Your task to perform on an android device: open device folders in google photos Image 0: 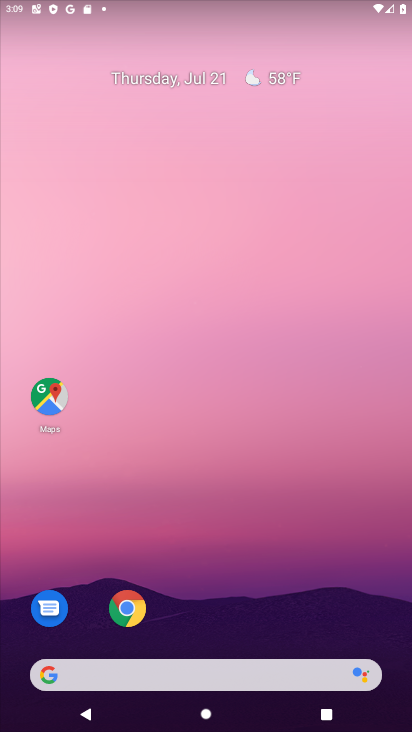
Step 0: press home button
Your task to perform on an android device: open device folders in google photos Image 1: 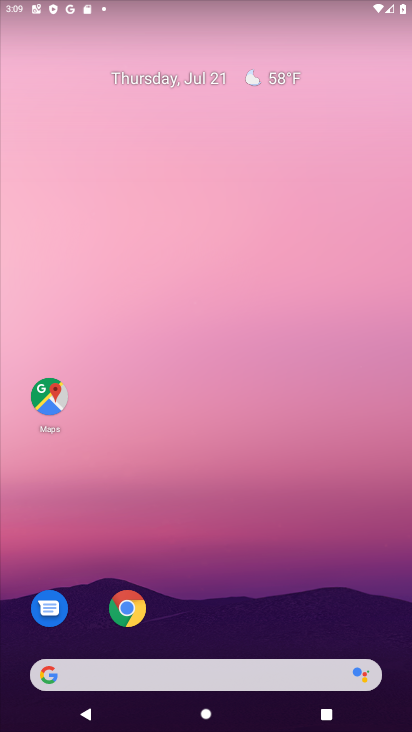
Step 1: drag from (210, 637) to (240, 38)
Your task to perform on an android device: open device folders in google photos Image 2: 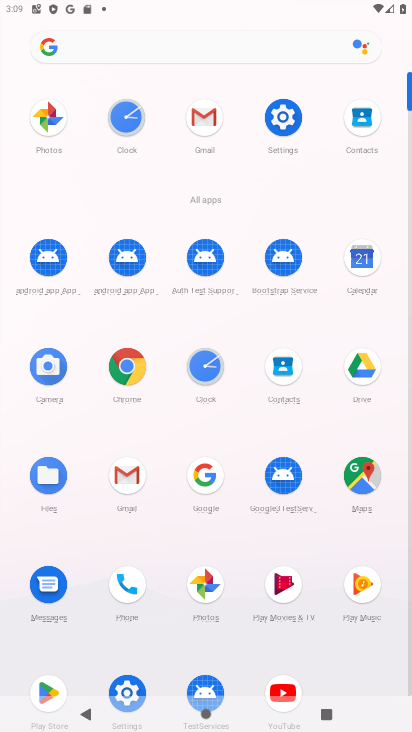
Step 2: click (200, 576)
Your task to perform on an android device: open device folders in google photos Image 3: 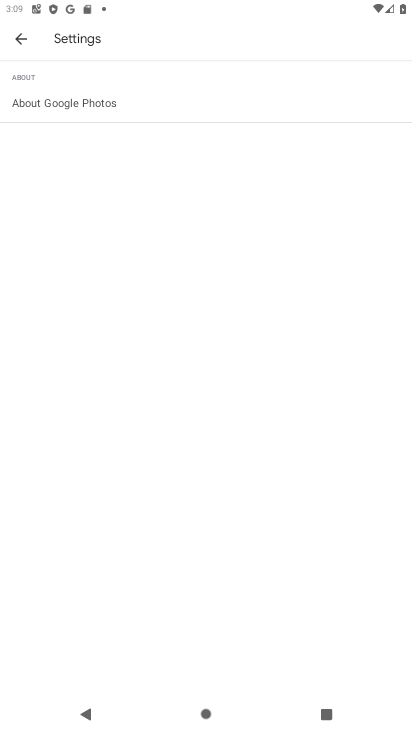
Step 3: click (18, 45)
Your task to perform on an android device: open device folders in google photos Image 4: 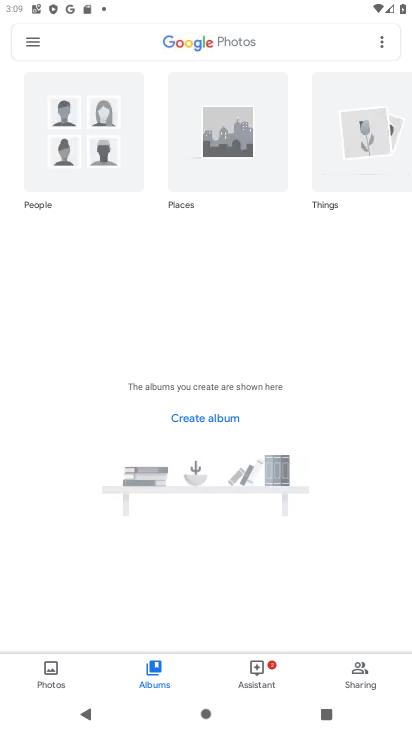
Step 4: click (33, 42)
Your task to perform on an android device: open device folders in google photos Image 5: 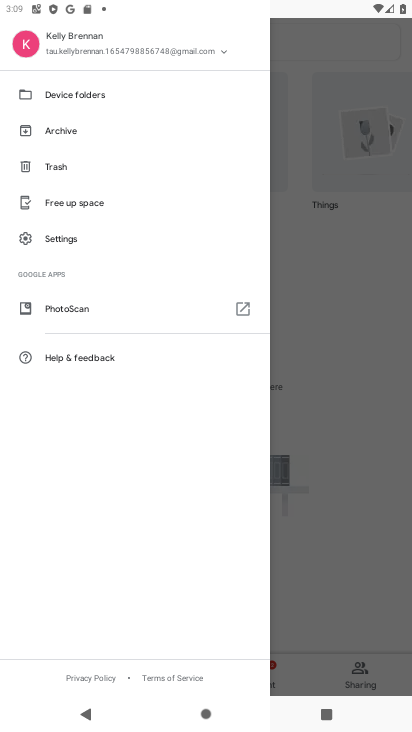
Step 5: click (96, 92)
Your task to perform on an android device: open device folders in google photos Image 6: 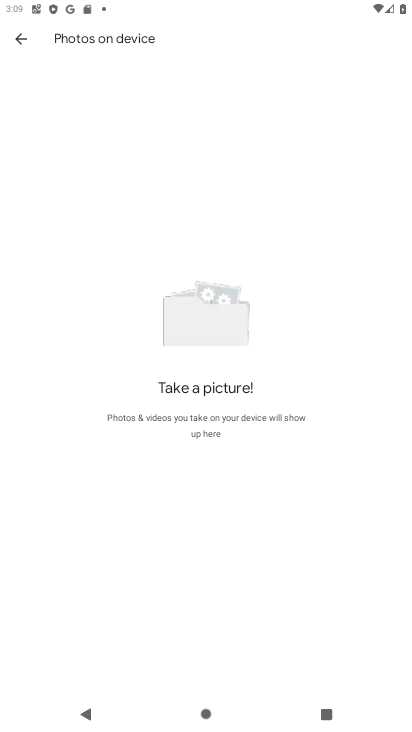
Step 6: task complete